Your task to perform on an android device: Go to network settings Image 0: 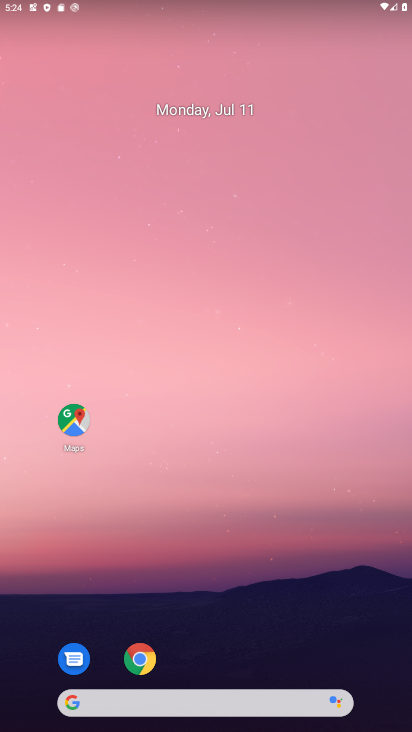
Step 0: drag from (337, 657) to (300, 55)
Your task to perform on an android device: Go to network settings Image 1: 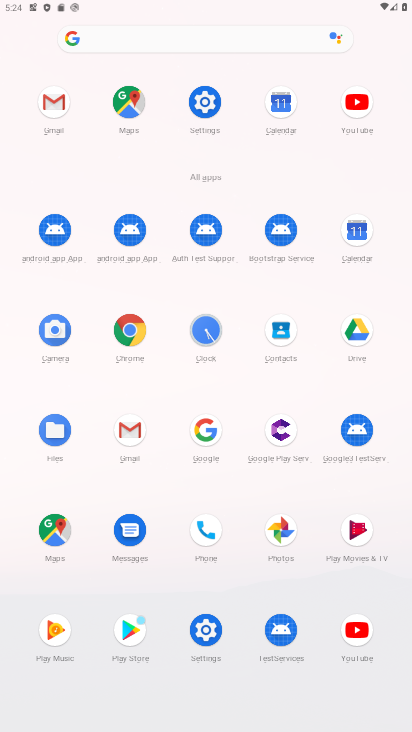
Step 1: click (204, 631)
Your task to perform on an android device: Go to network settings Image 2: 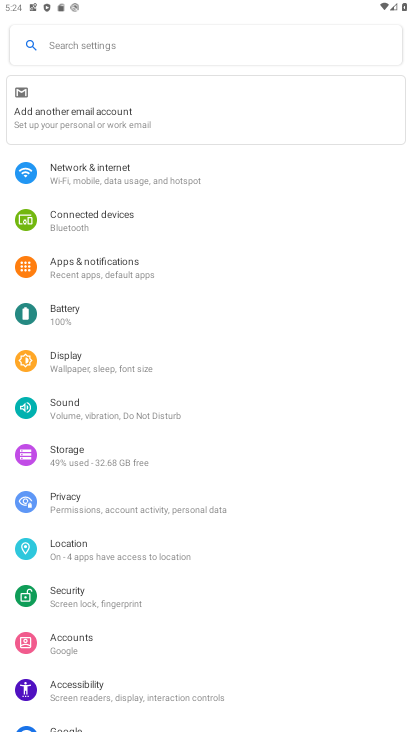
Step 2: click (76, 172)
Your task to perform on an android device: Go to network settings Image 3: 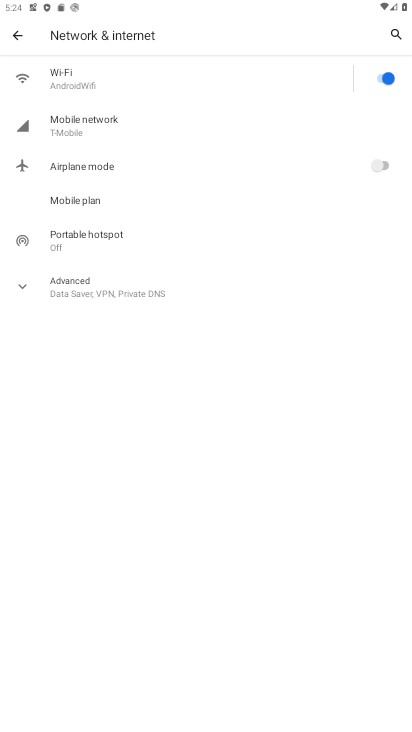
Step 3: click (71, 116)
Your task to perform on an android device: Go to network settings Image 4: 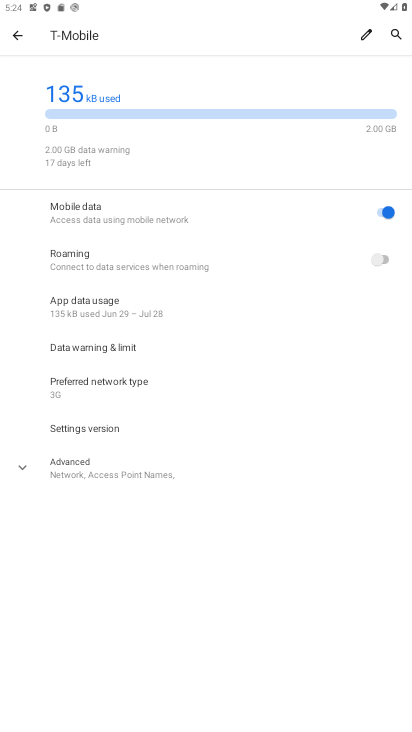
Step 4: click (18, 470)
Your task to perform on an android device: Go to network settings Image 5: 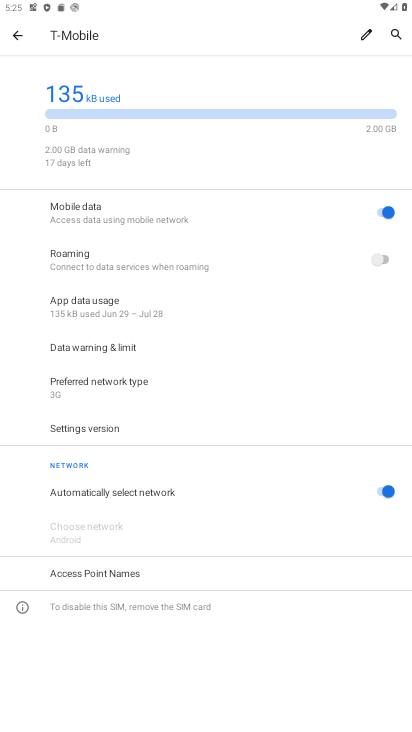
Step 5: task complete